Your task to perform on an android device: turn off location history Image 0: 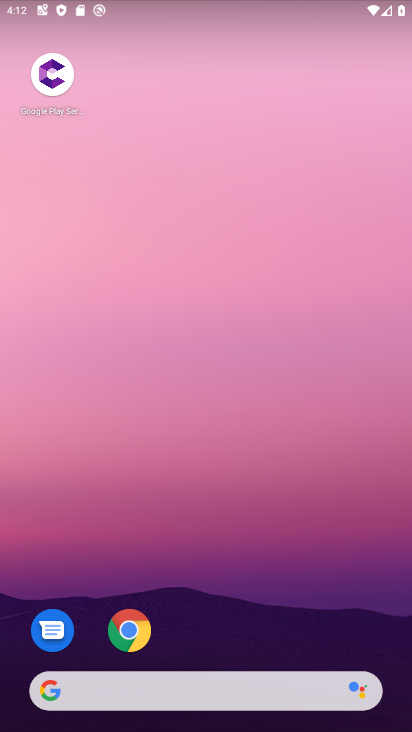
Step 0: drag from (92, 618) to (407, 72)
Your task to perform on an android device: turn off location history Image 1: 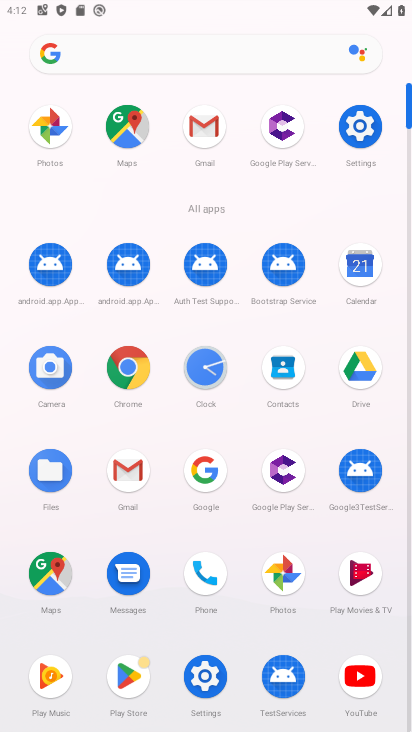
Step 1: click (221, 685)
Your task to perform on an android device: turn off location history Image 2: 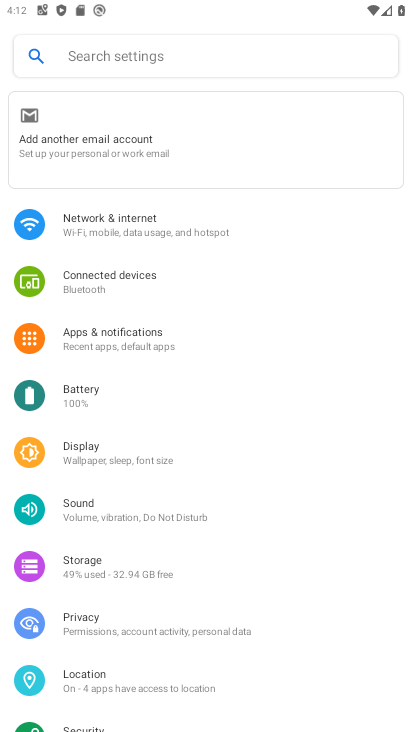
Step 2: click (98, 680)
Your task to perform on an android device: turn off location history Image 3: 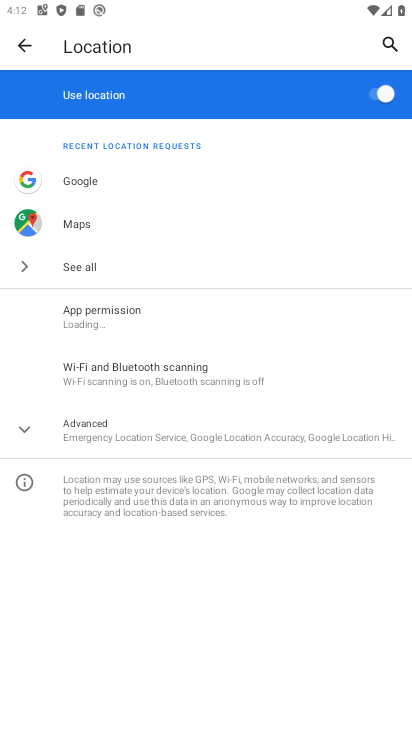
Step 3: click (392, 92)
Your task to perform on an android device: turn off location history Image 4: 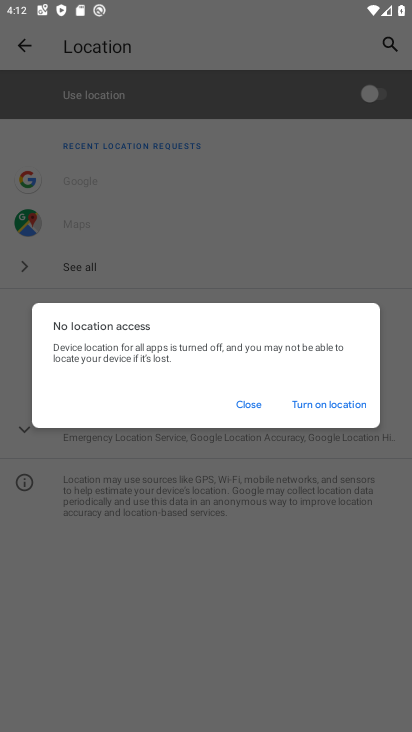
Step 4: task complete